Your task to perform on an android device: See recent photos Image 0: 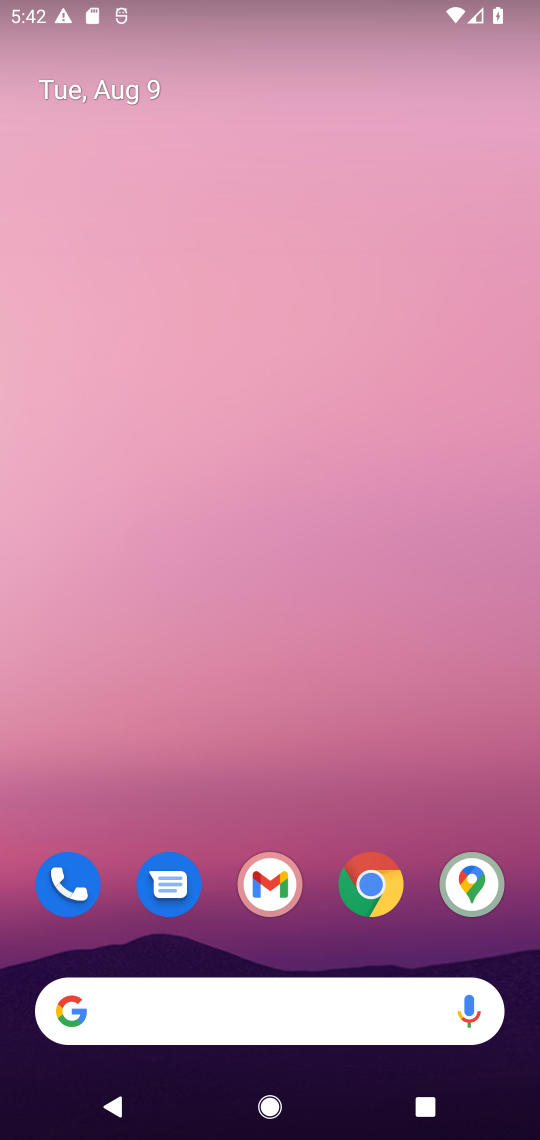
Step 0: drag from (223, 1010) to (278, 132)
Your task to perform on an android device: See recent photos Image 1: 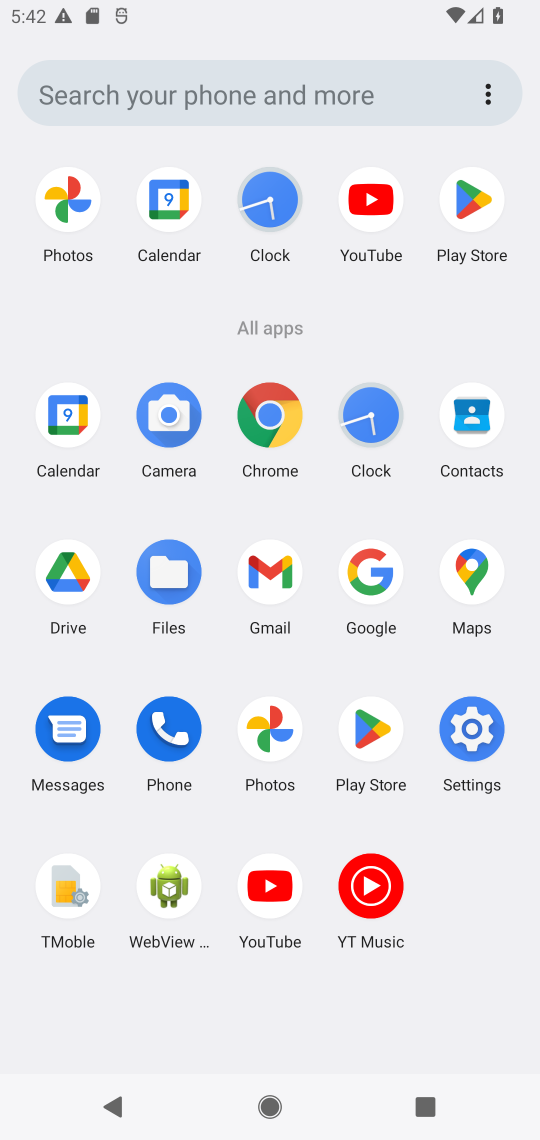
Step 1: click (72, 202)
Your task to perform on an android device: See recent photos Image 2: 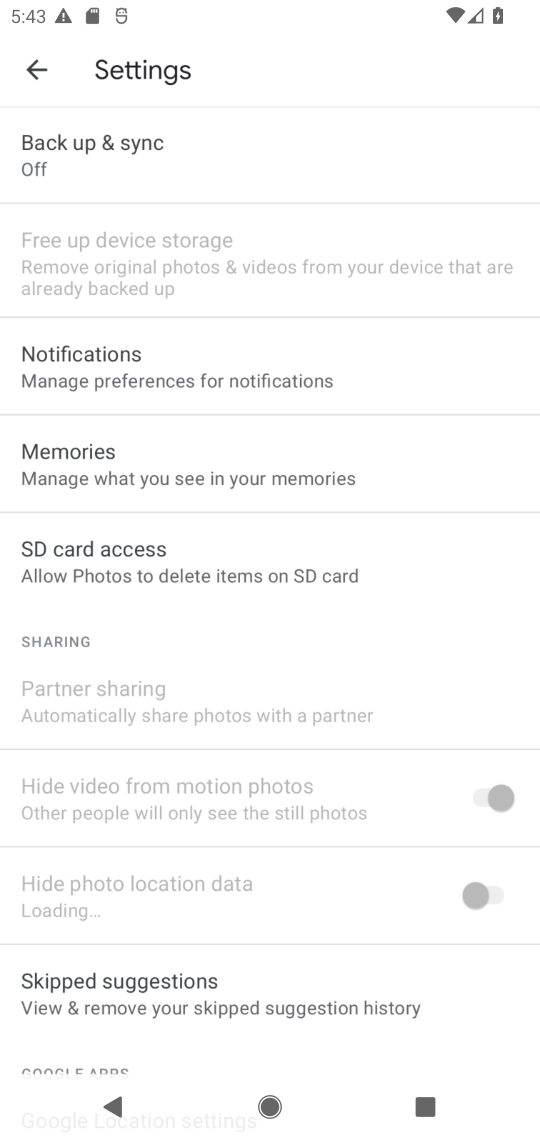
Step 2: drag from (166, 988) to (334, 512)
Your task to perform on an android device: See recent photos Image 3: 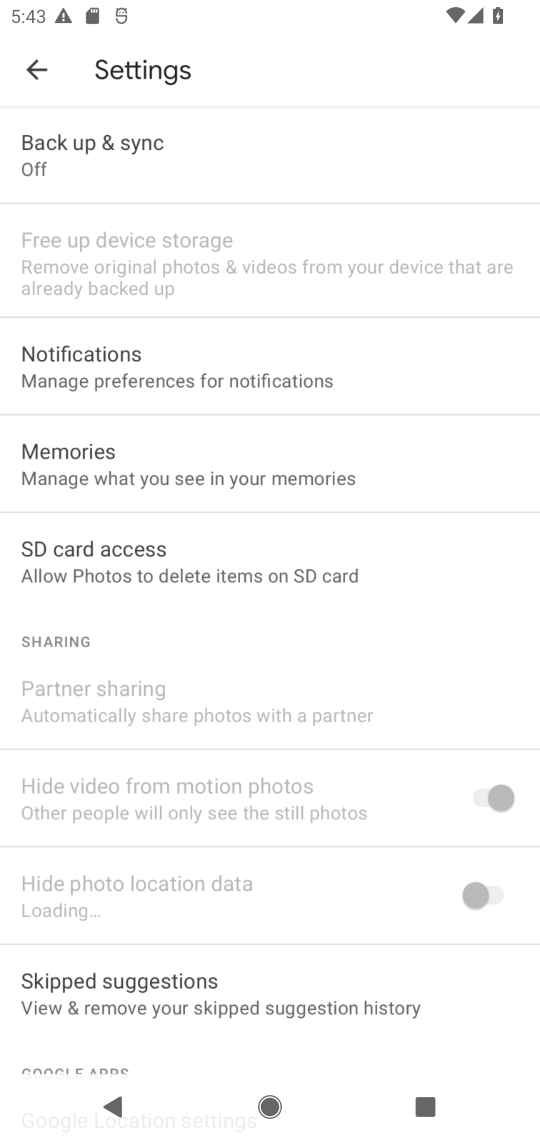
Step 3: press back button
Your task to perform on an android device: See recent photos Image 4: 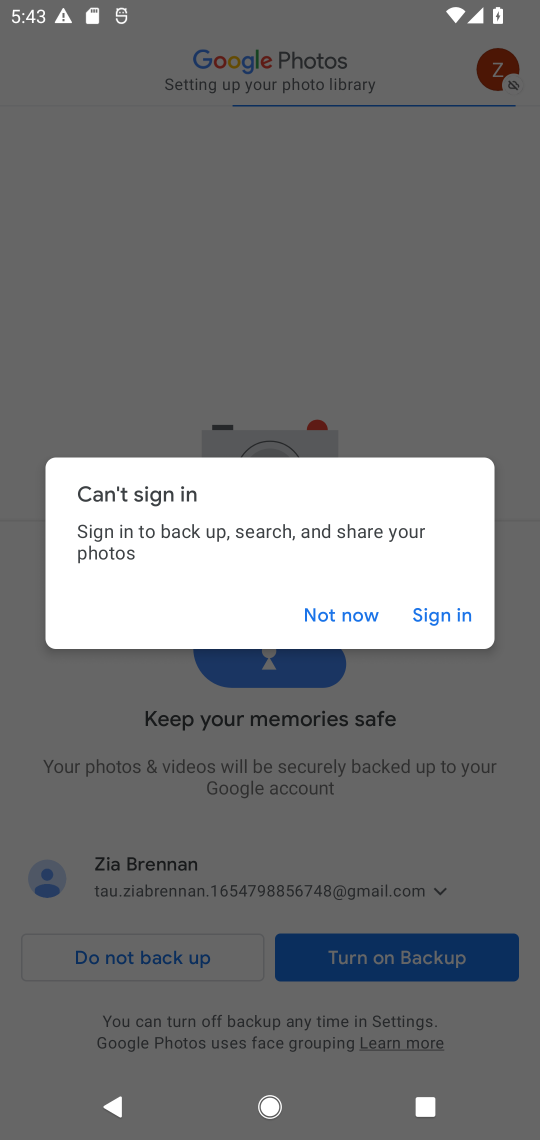
Step 4: click (340, 611)
Your task to perform on an android device: See recent photos Image 5: 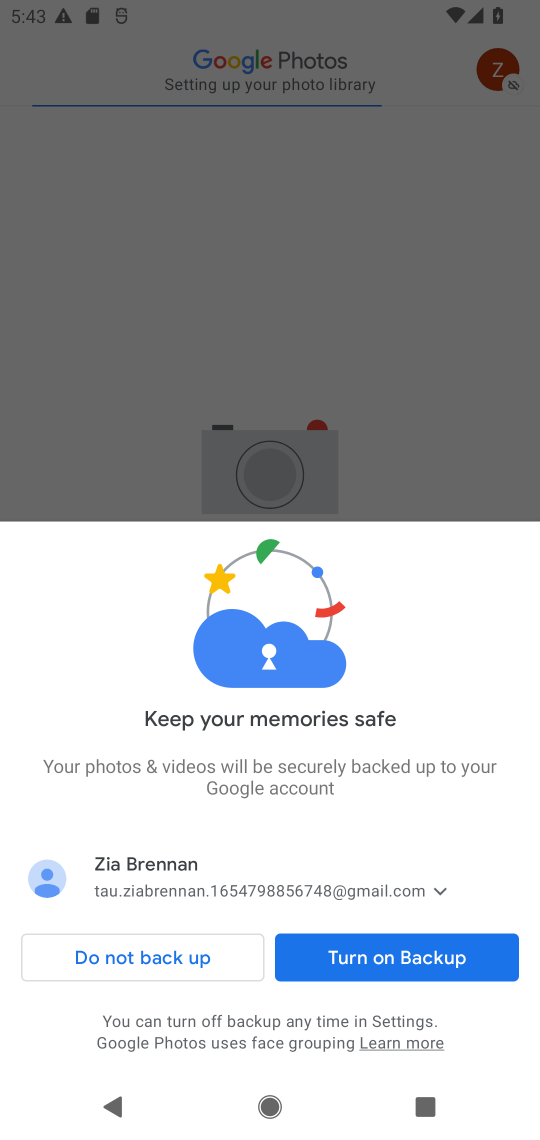
Step 5: click (363, 957)
Your task to perform on an android device: See recent photos Image 6: 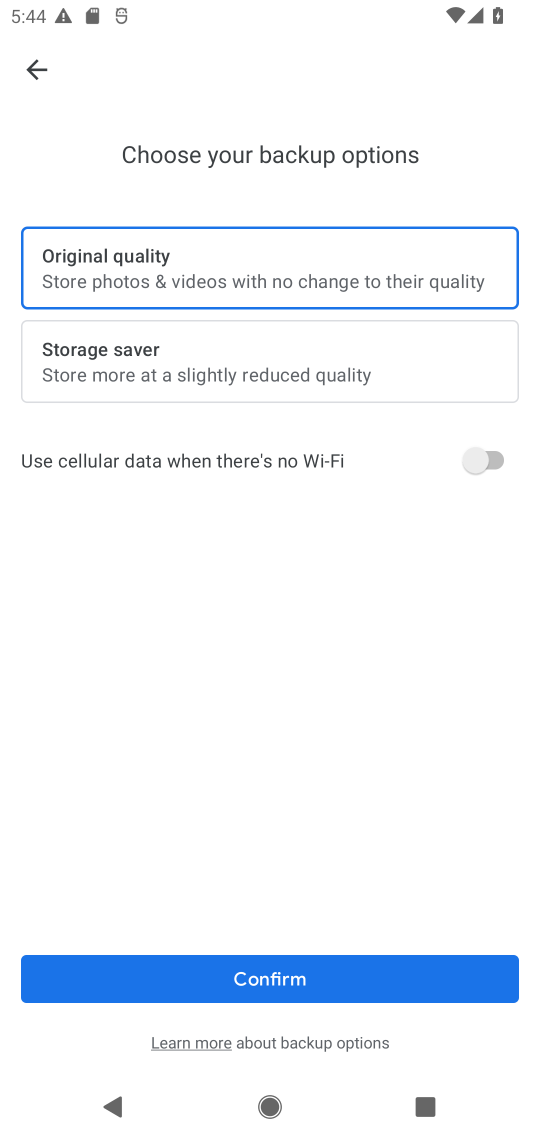
Step 6: click (276, 982)
Your task to perform on an android device: See recent photos Image 7: 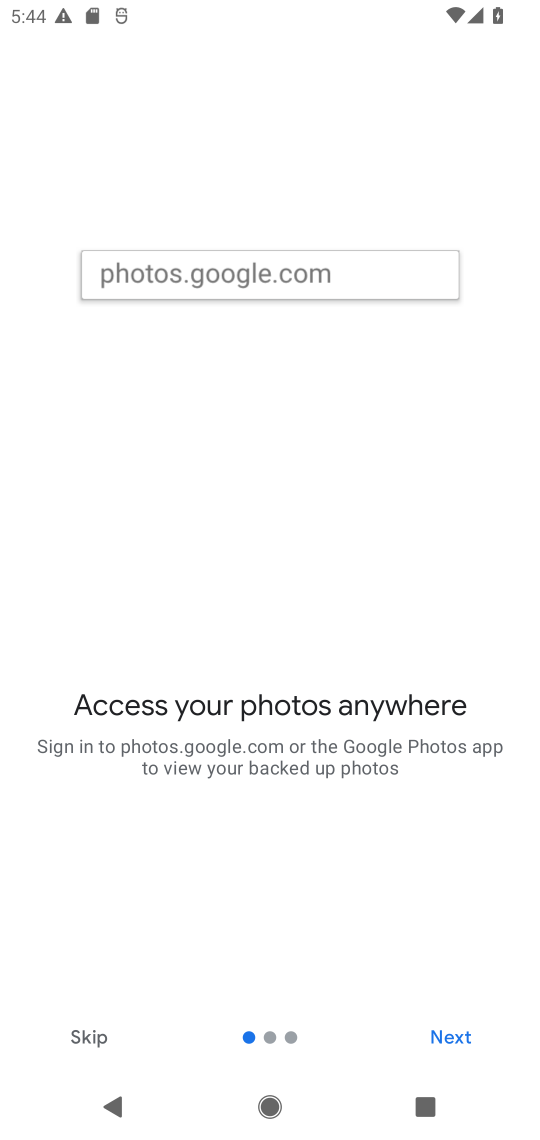
Step 7: click (110, 1029)
Your task to perform on an android device: See recent photos Image 8: 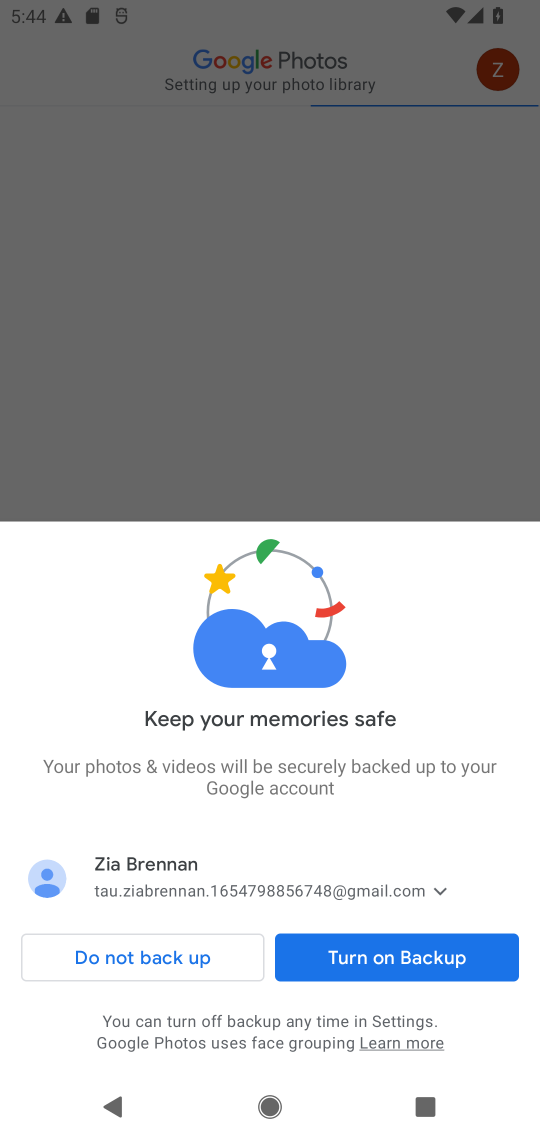
Step 8: task complete